Your task to perform on an android device: set the timer Image 0: 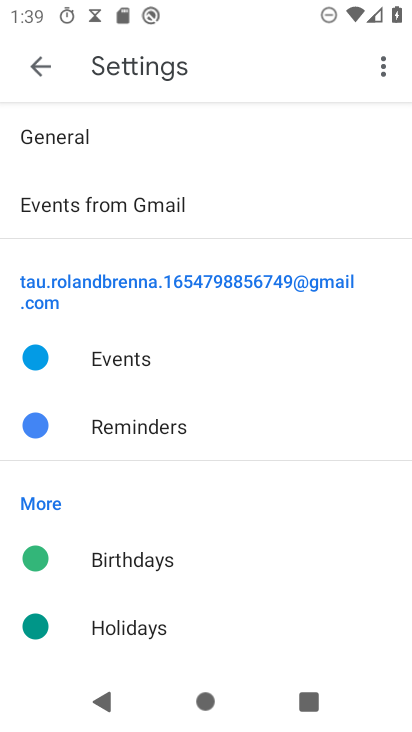
Step 0: press home button
Your task to perform on an android device: set the timer Image 1: 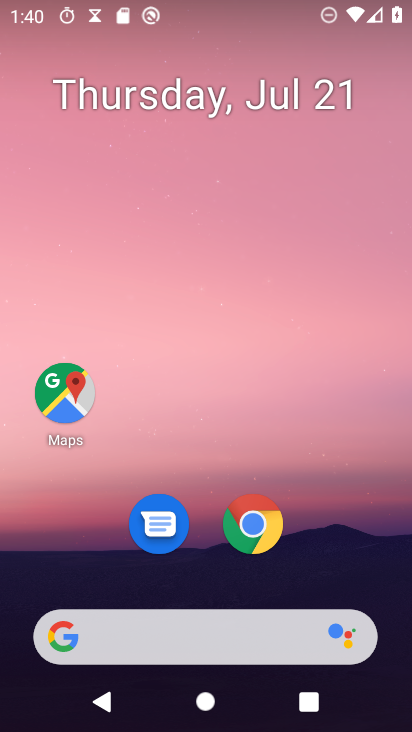
Step 1: drag from (166, 640) to (323, 141)
Your task to perform on an android device: set the timer Image 2: 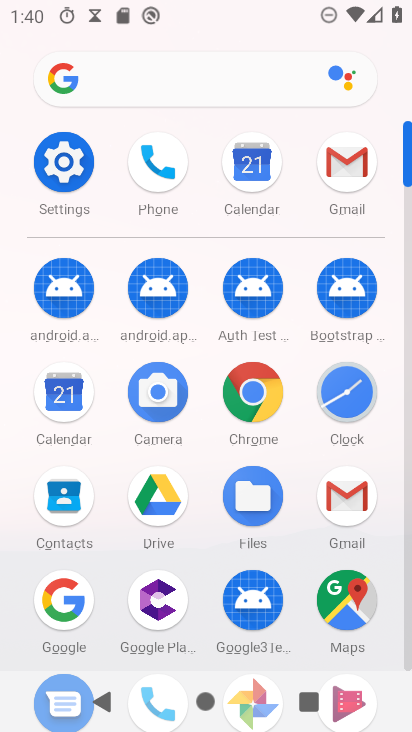
Step 2: click (348, 409)
Your task to perform on an android device: set the timer Image 3: 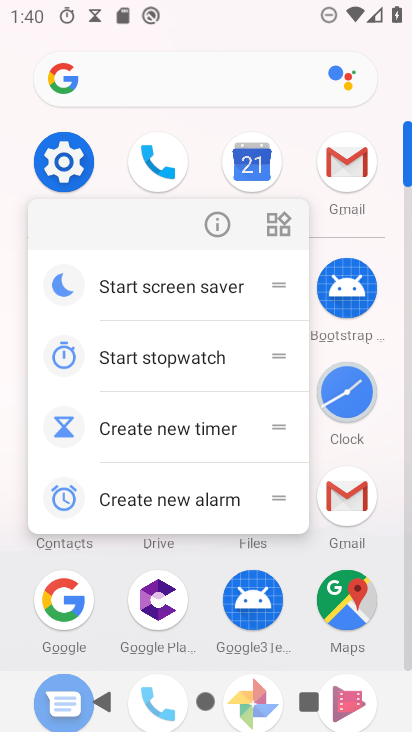
Step 3: click (347, 402)
Your task to perform on an android device: set the timer Image 4: 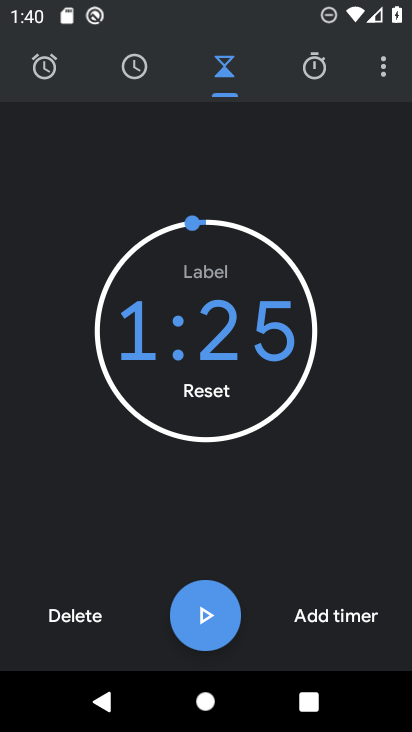
Step 4: click (93, 626)
Your task to perform on an android device: set the timer Image 5: 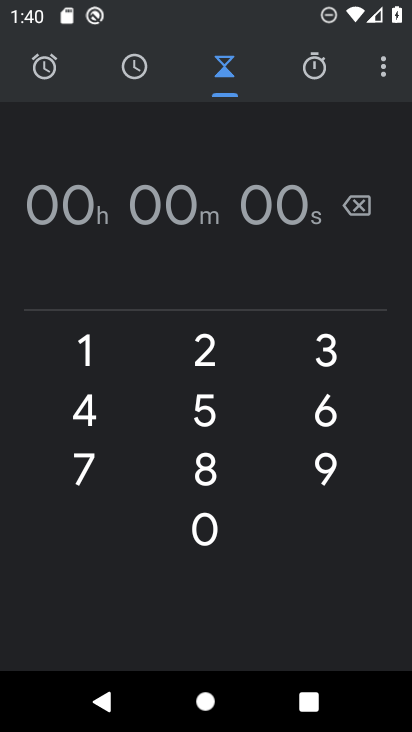
Step 5: click (85, 347)
Your task to perform on an android device: set the timer Image 6: 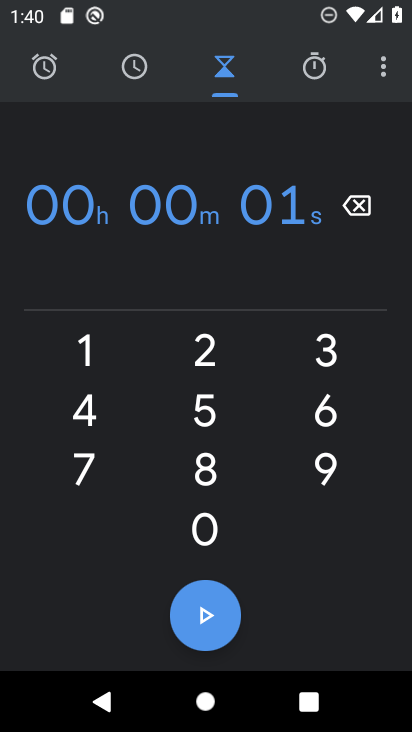
Step 6: click (85, 347)
Your task to perform on an android device: set the timer Image 7: 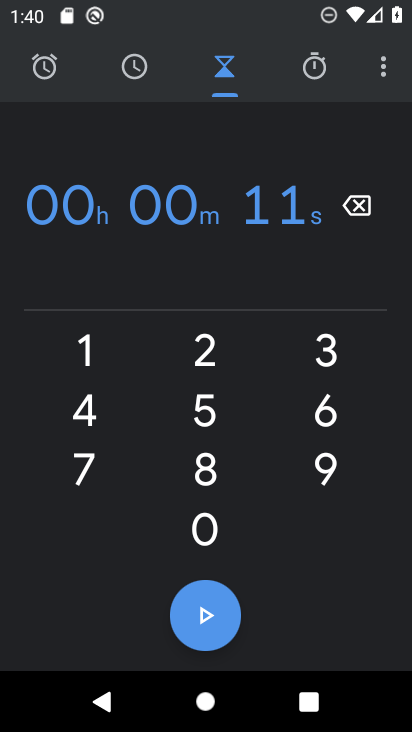
Step 7: click (201, 604)
Your task to perform on an android device: set the timer Image 8: 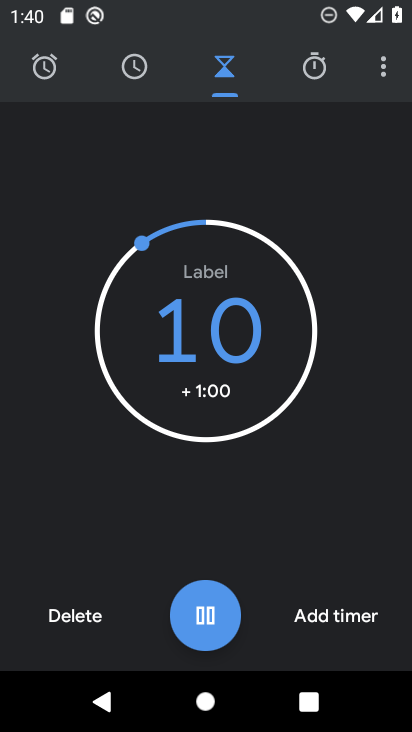
Step 8: click (203, 613)
Your task to perform on an android device: set the timer Image 9: 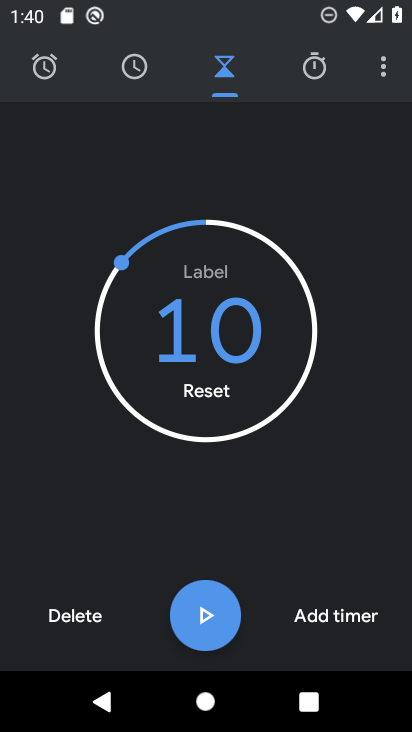
Step 9: task complete